Your task to perform on an android device: Do I have any events today? Image 0: 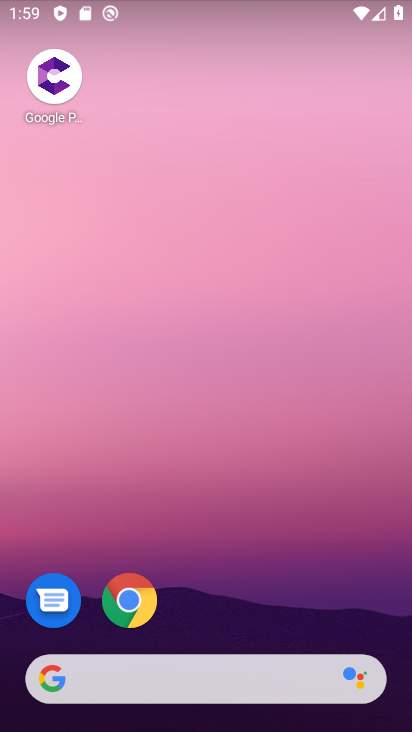
Step 0: drag from (226, 596) to (282, 55)
Your task to perform on an android device: Do I have any events today? Image 1: 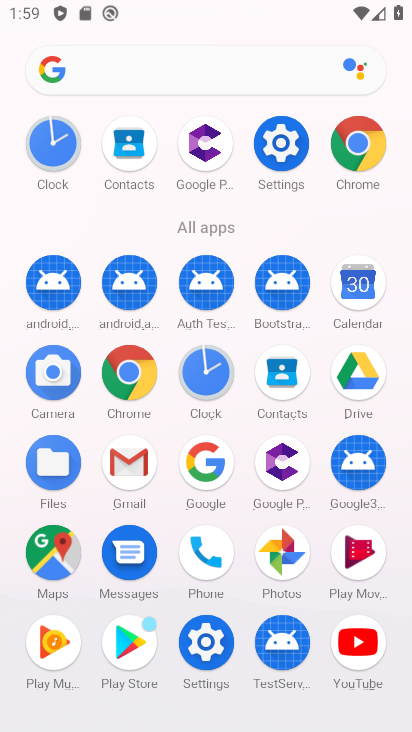
Step 1: click (366, 290)
Your task to perform on an android device: Do I have any events today? Image 2: 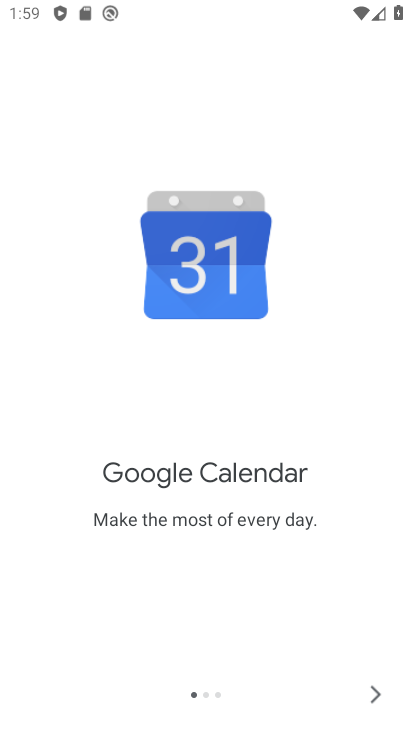
Step 2: click (373, 692)
Your task to perform on an android device: Do I have any events today? Image 3: 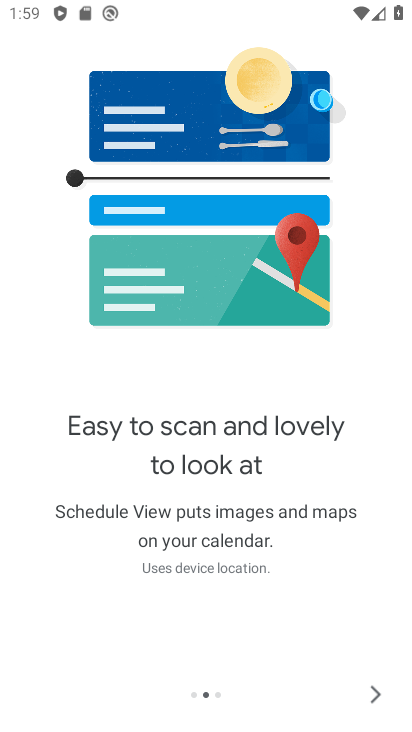
Step 3: click (373, 692)
Your task to perform on an android device: Do I have any events today? Image 4: 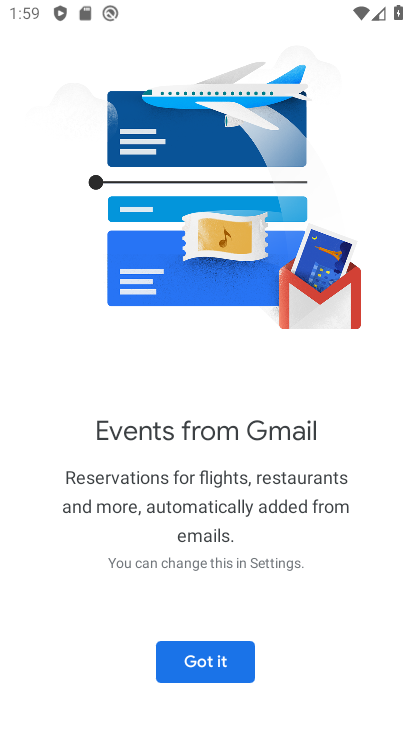
Step 4: click (230, 654)
Your task to perform on an android device: Do I have any events today? Image 5: 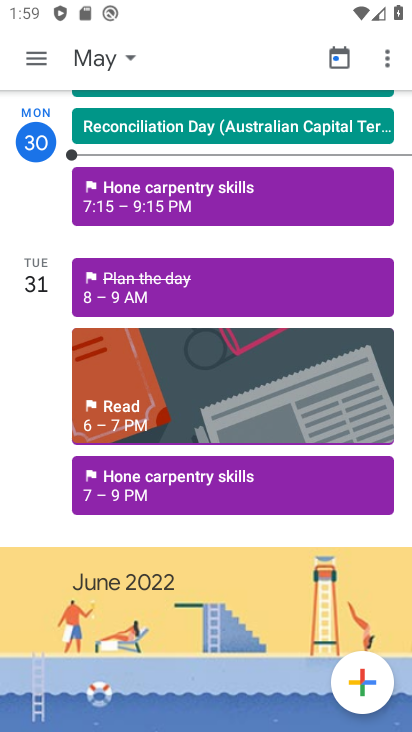
Step 5: click (36, 56)
Your task to perform on an android device: Do I have any events today? Image 6: 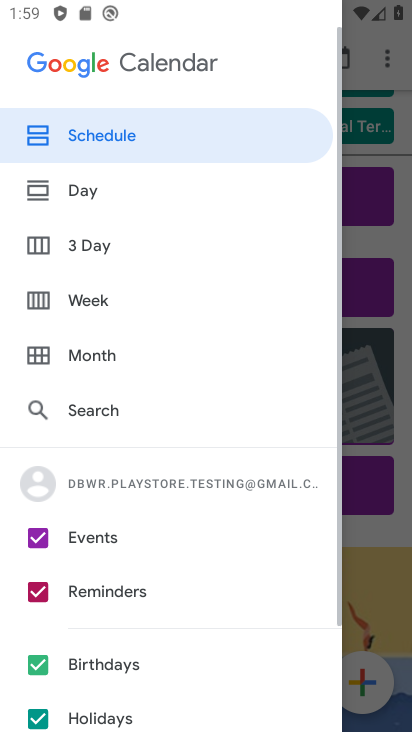
Step 6: drag from (148, 579) to (158, 372)
Your task to perform on an android device: Do I have any events today? Image 7: 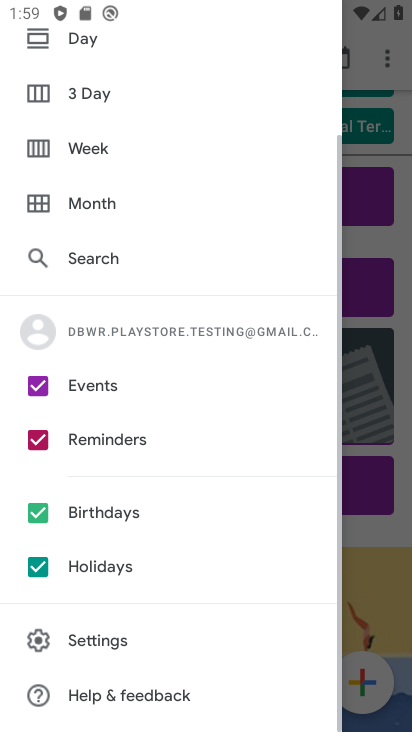
Step 7: click (43, 434)
Your task to perform on an android device: Do I have any events today? Image 8: 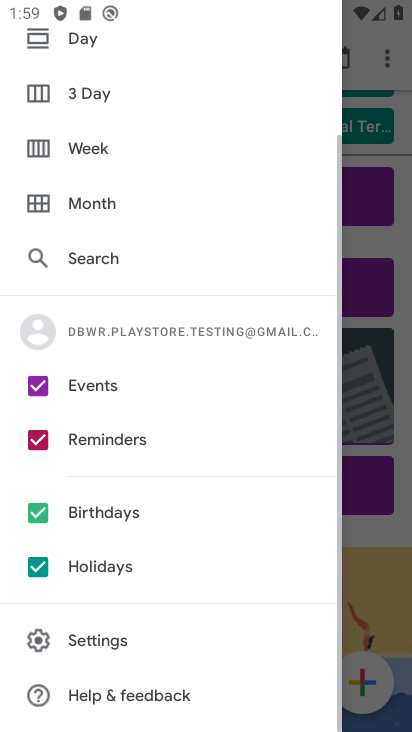
Step 8: click (36, 512)
Your task to perform on an android device: Do I have any events today? Image 9: 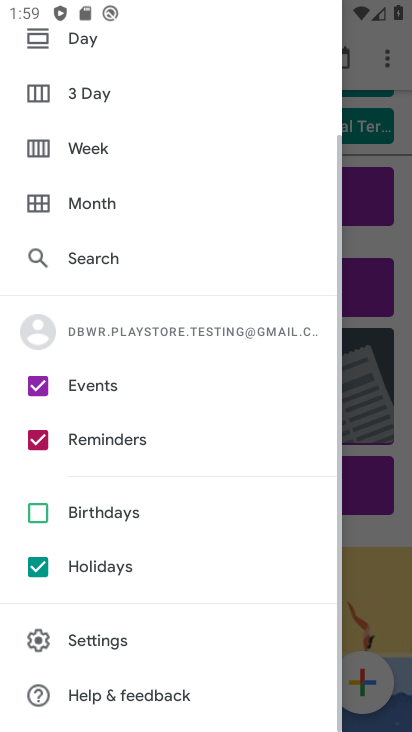
Step 9: click (36, 570)
Your task to perform on an android device: Do I have any events today? Image 10: 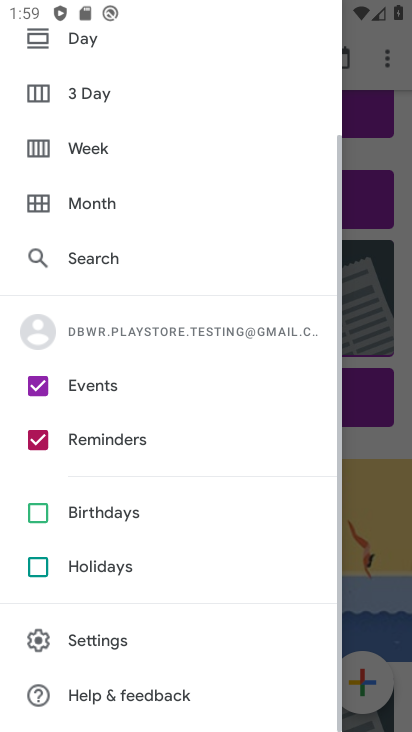
Step 10: click (42, 433)
Your task to perform on an android device: Do I have any events today? Image 11: 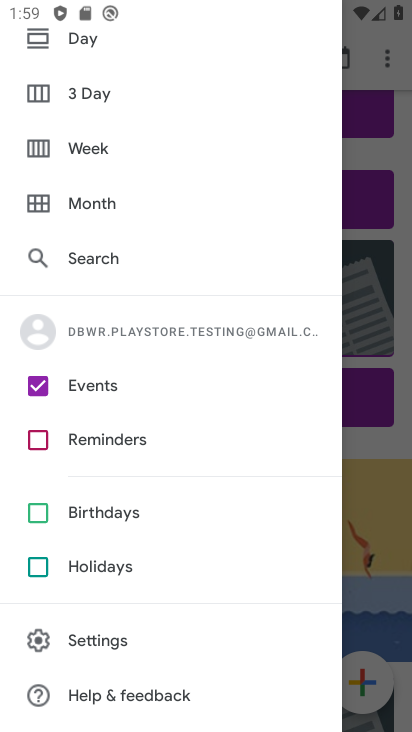
Step 11: click (380, 445)
Your task to perform on an android device: Do I have any events today? Image 12: 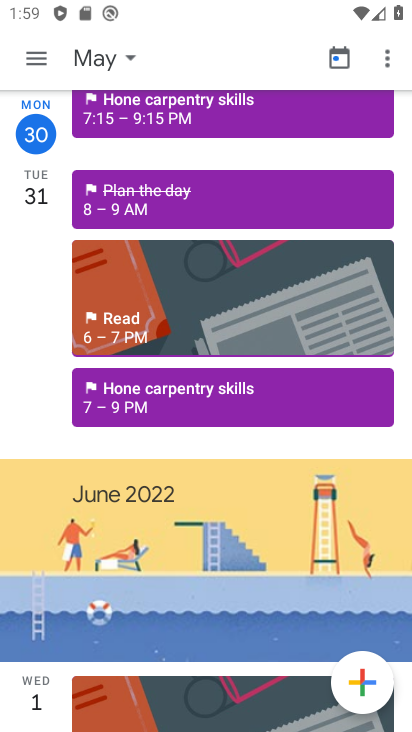
Step 12: click (45, 61)
Your task to perform on an android device: Do I have any events today? Image 13: 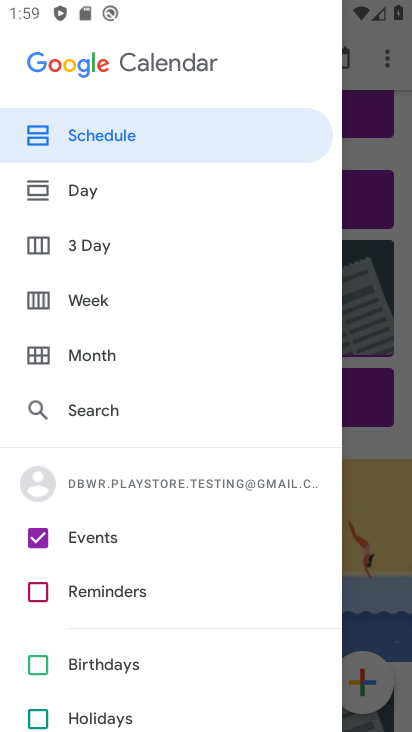
Step 13: click (130, 131)
Your task to perform on an android device: Do I have any events today? Image 14: 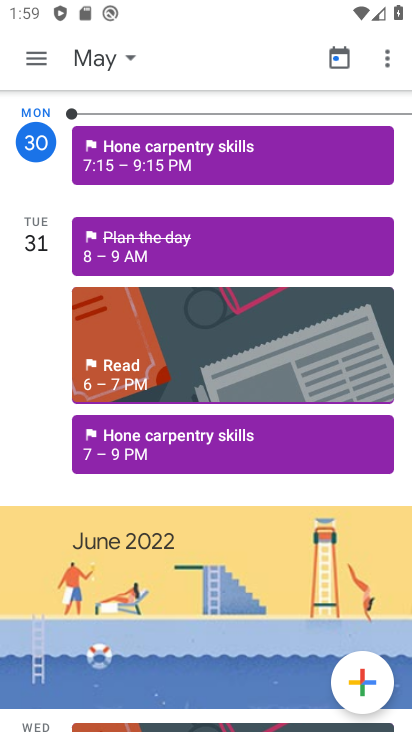
Step 14: click (198, 169)
Your task to perform on an android device: Do I have any events today? Image 15: 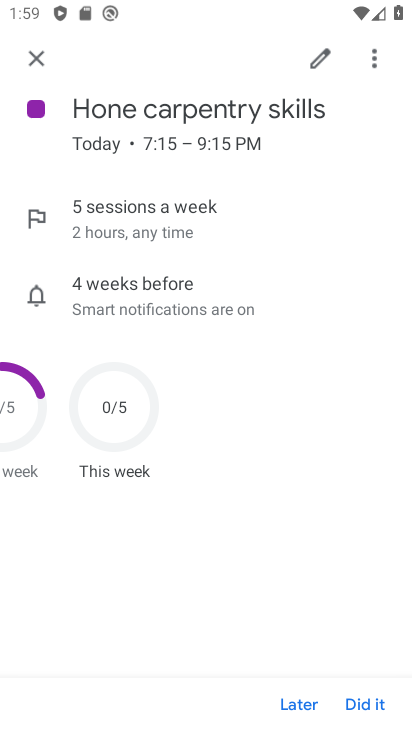
Step 15: task complete